Your task to perform on an android device: turn on sleep mode Image 0: 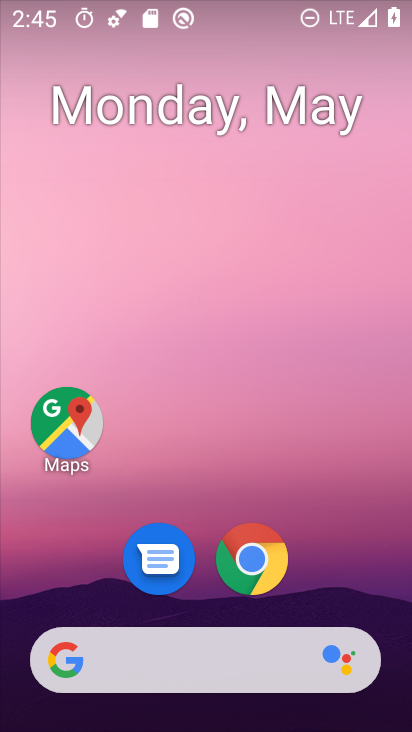
Step 0: drag from (325, 601) to (405, 46)
Your task to perform on an android device: turn on sleep mode Image 1: 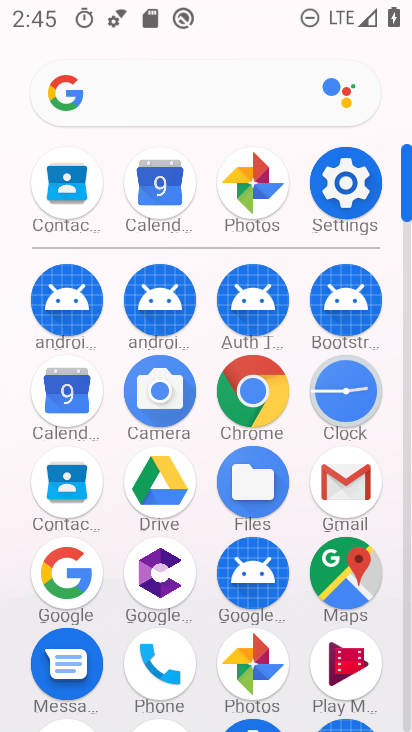
Step 1: click (338, 197)
Your task to perform on an android device: turn on sleep mode Image 2: 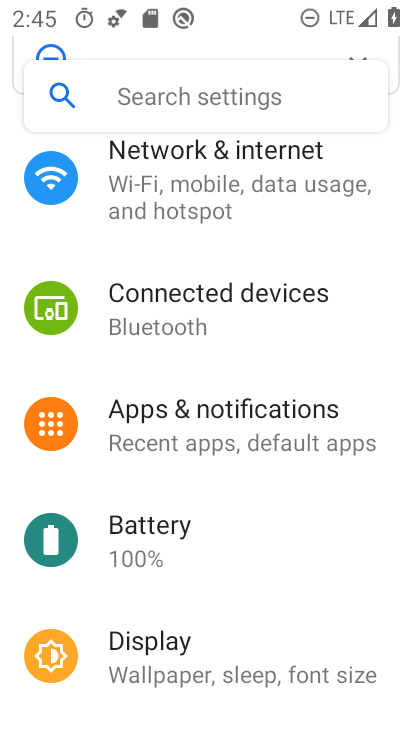
Step 2: click (162, 650)
Your task to perform on an android device: turn on sleep mode Image 3: 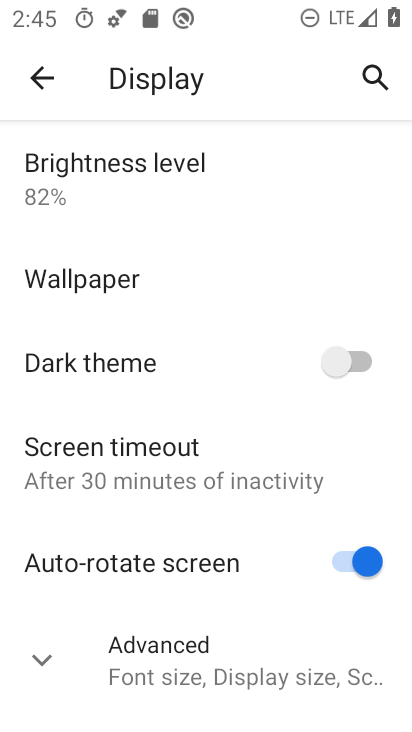
Step 3: click (48, 667)
Your task to perform on an android device: turn on sleep mode Image 4: 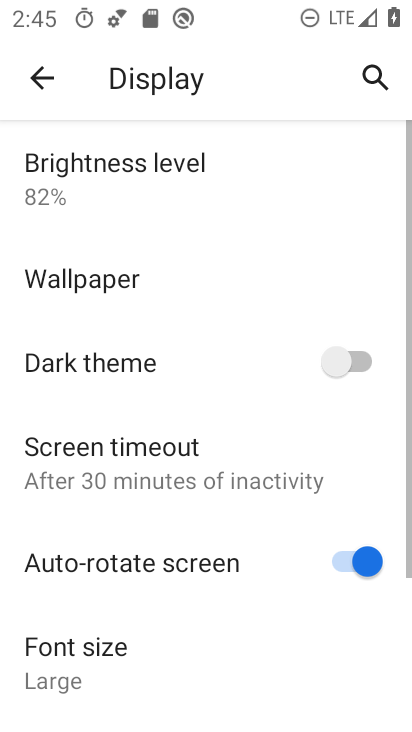
Step 4: task complete